Your task to perform on an android device: Open the web browser Image 0: 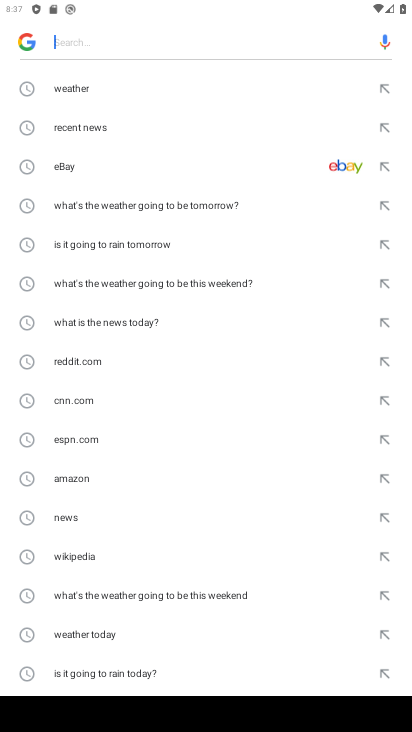
Step 0: task complete